Your task to perform on an android device: set an alarm Image 0: 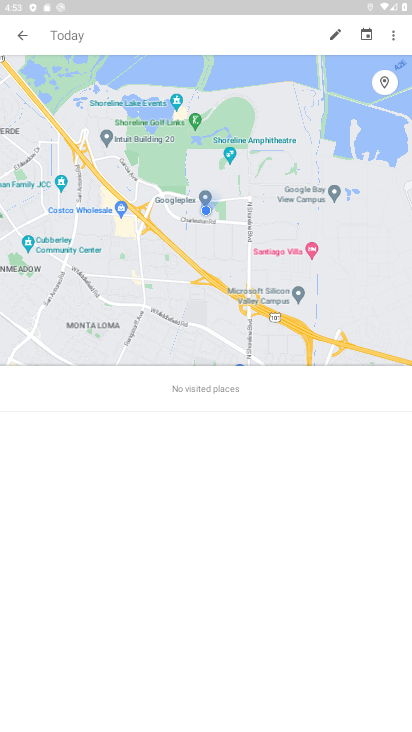
Step 0: press home button
Your task to perform on an android device: set an alarm Image 1: 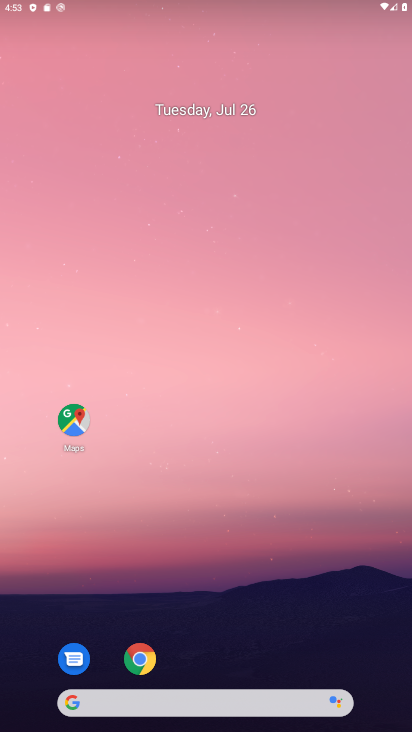
Step 1: drag from (173, 605) to (187, 75)
Your task to perform on an android device: set an alarm Image 2: 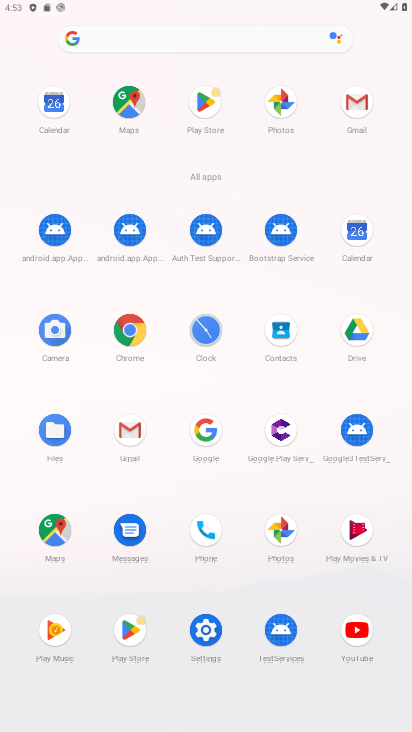
Step 2: click (211, 322)
Your task to perform on an android device: set an alarm Image 3: 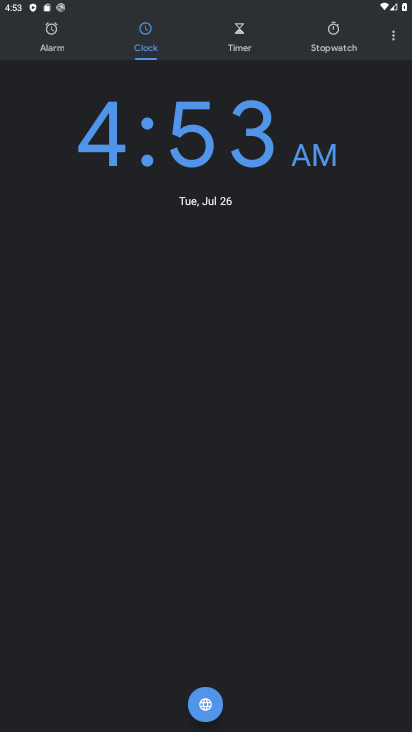
Step 3: click (48, 36)
Your task to perform on an android device: set an alarm Image 4: 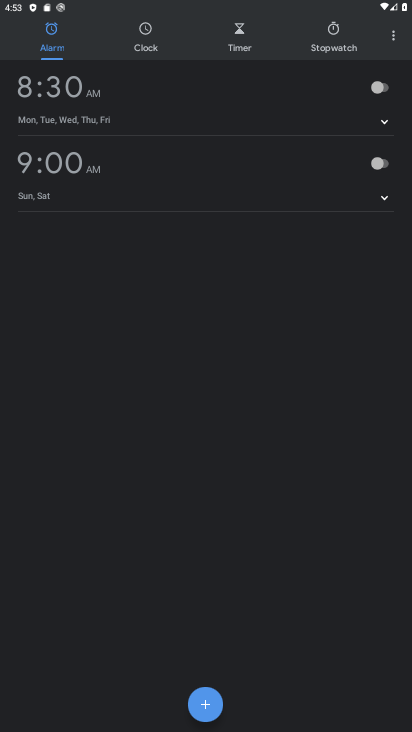
Step 4: click (204, 697)
Your task to perform on an android device: set an alarm Image 5: 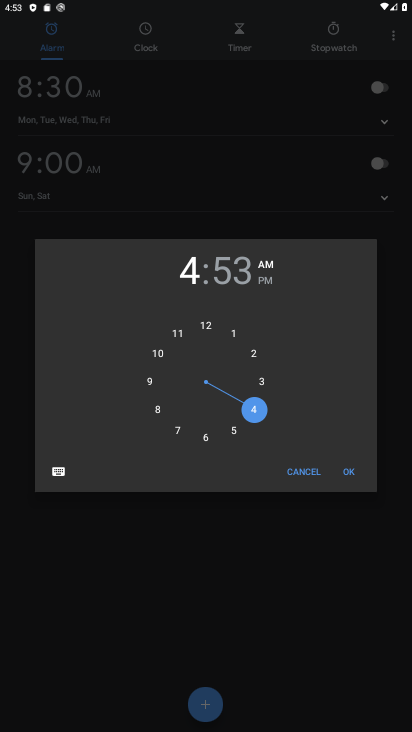
Step 5: click (206, 436)
Your task to perform on an android device: set an alarm Image 6: 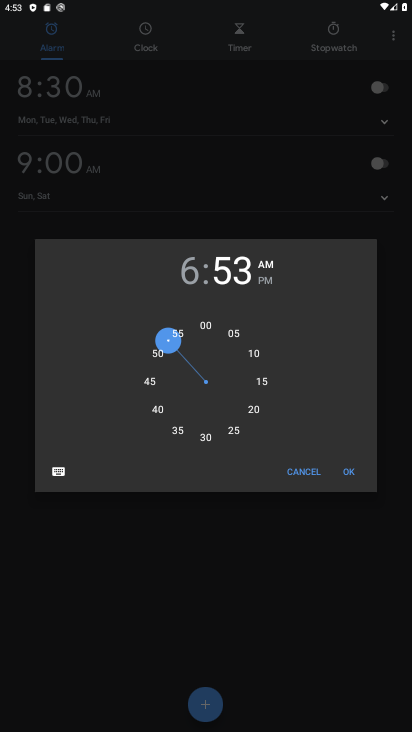
Step 6: click (206, 436)
Your task to perform on an android device: set an alarm Image 7: 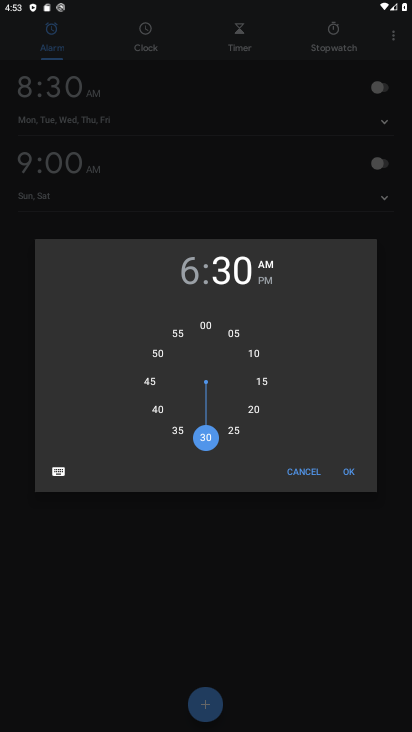
Step 7: task complete